Your task to perform on an android device: Open the Play Movies app and select the watchlist tab. Image 0: 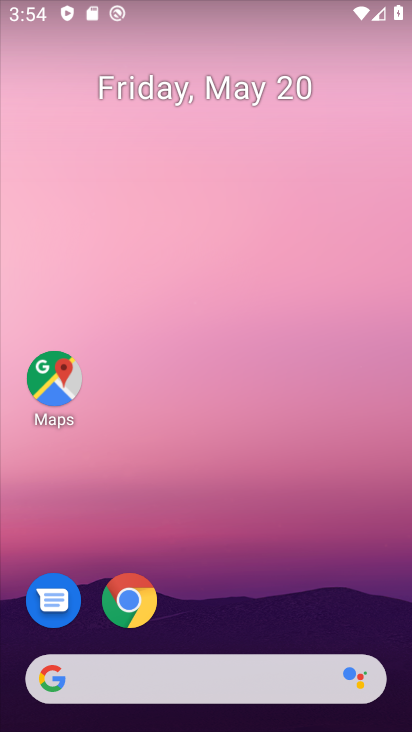
Step 0: drag from (213, 551) to (208, 12)
Your task to perform on an android device: Open the Play Movies app and select the watchlist tab. Image 1: 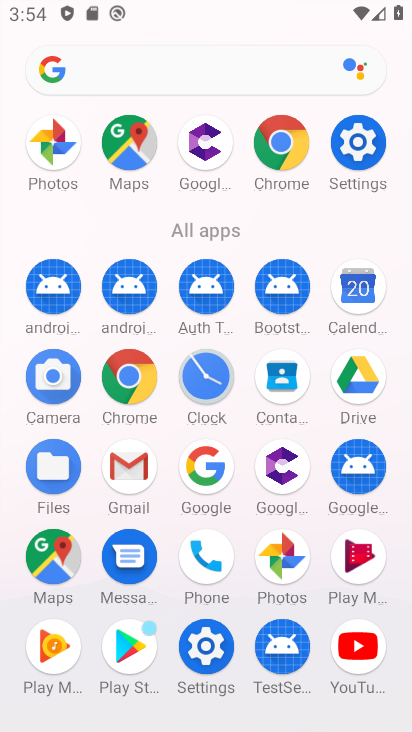
Step 1: drag from (3, 548) to (46, 267)
Your task to perform on an android device: Open the Play Movies app and select the watchlist tab. Image 2: 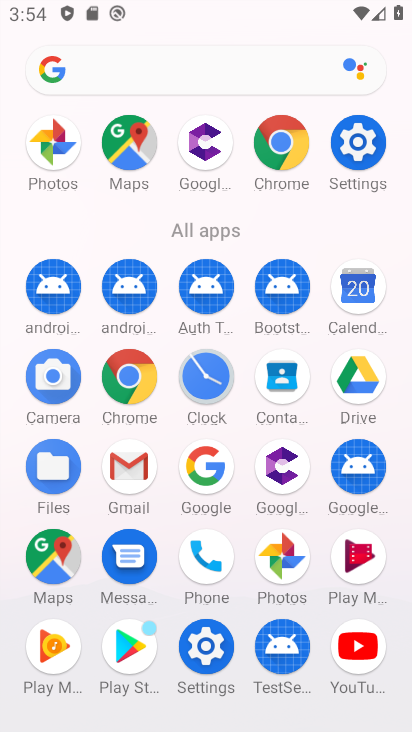
Step 2: click (357, 552)
Your task to perform on an android device: Open the Play Movies app and select the watchlist tab. Image 3: 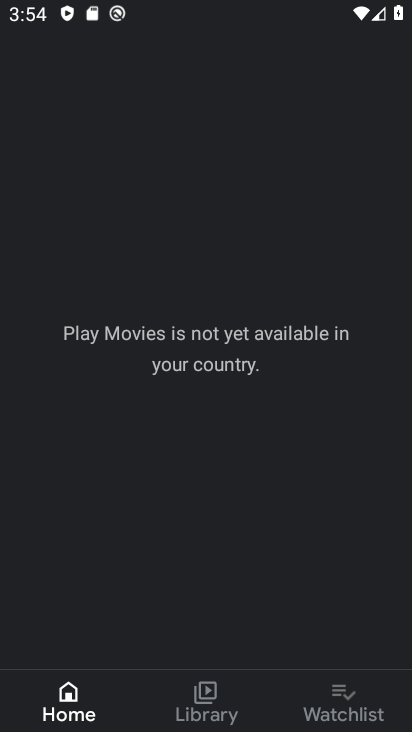
Step 3: click (321, 678)
Your task to perform on an android device: Open the Play Movies app and select the watchlist tab. Image 4: 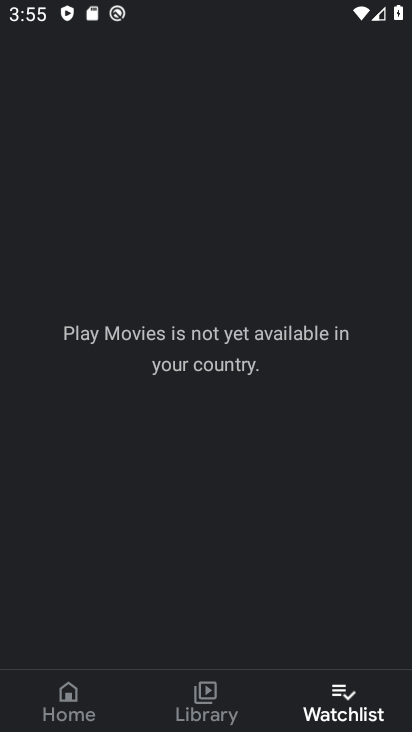
Step 4: task complete